Your task to perform on an android device: turn notification dots on Image 0: 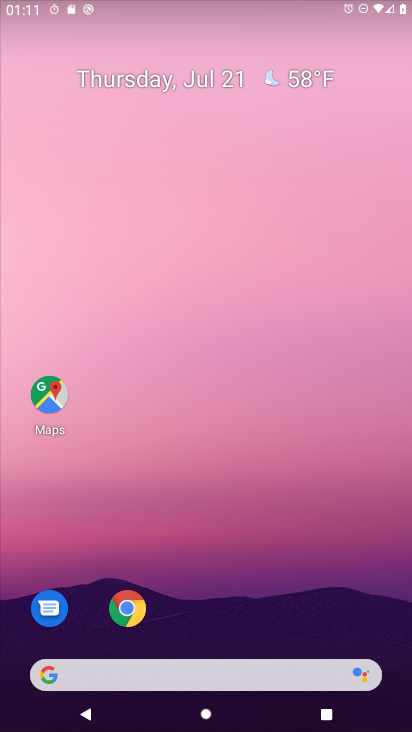
Step 0: press home button
Your task to perform on an android device: turn notification dots on Image 1: 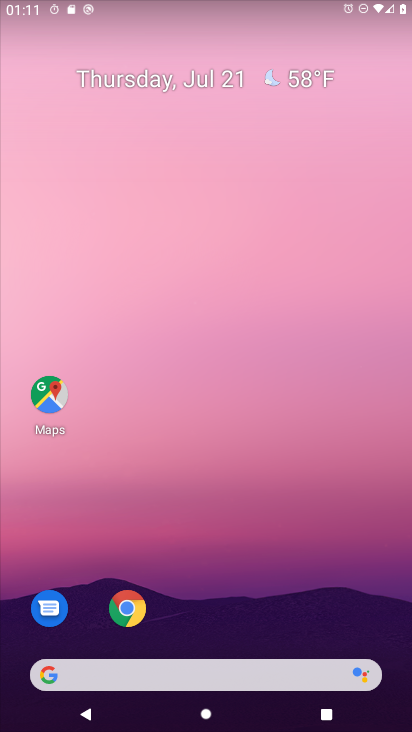
Step 1: drag from (294, 633) to (97, 0)
Your task to perform on an android device: turn notification dots on Image 2: 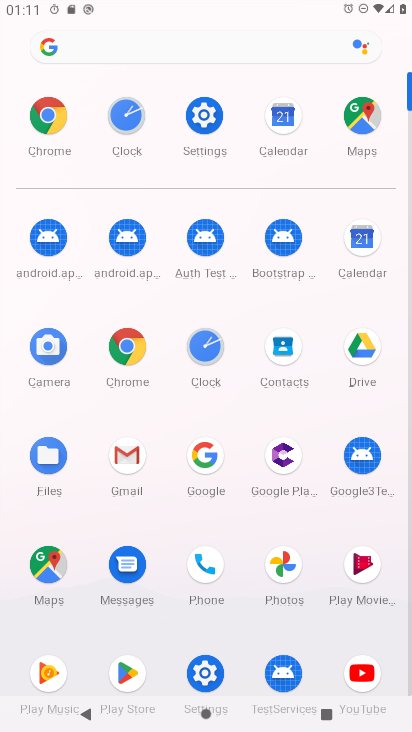
Step 2: click (195, 112)
Your task to perform on an android device: turn notification dots on Image 3: 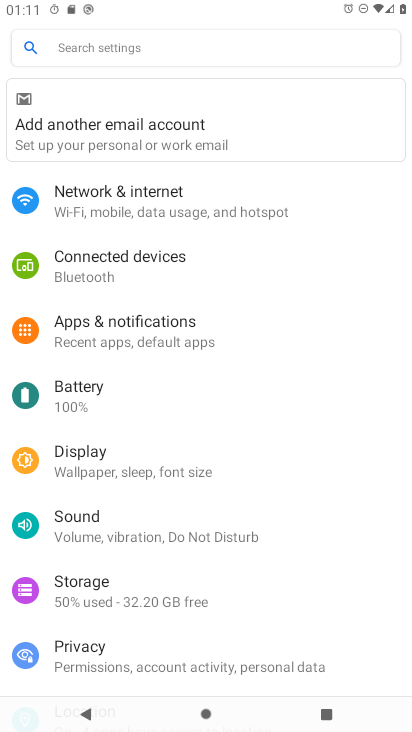
Step 3: click (144, 327)
Your task to perform on an android device: turn notification dots on Image 4: 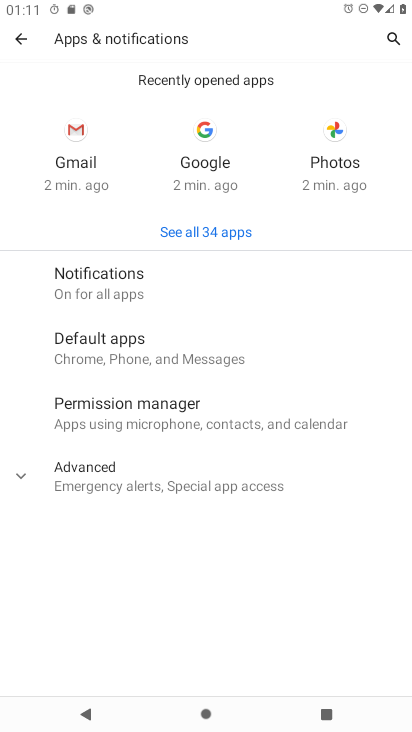
Step 4: click (83, 292)
Your task to perform on an android device: turn notification dots on Image 5: 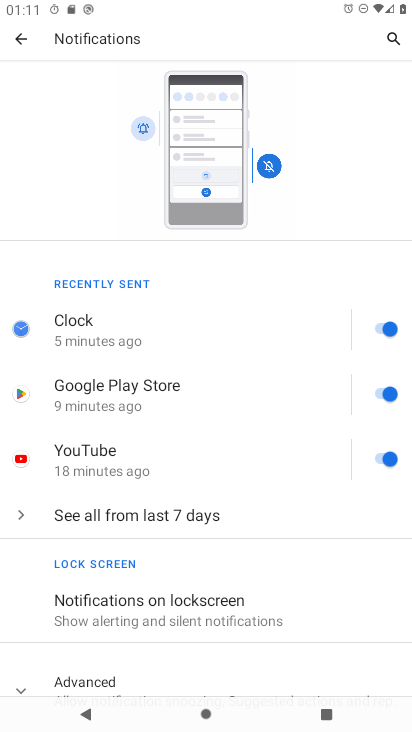
Step 5: click (112, 681)
Your task to perform on an android device: turn notification dots on Image 6: 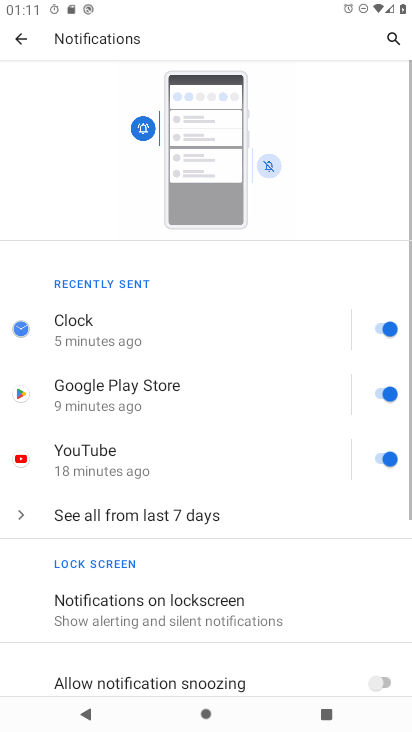
Step 6: task complete